Your task to perform on an android device: open sync settings in chrome Image 0: 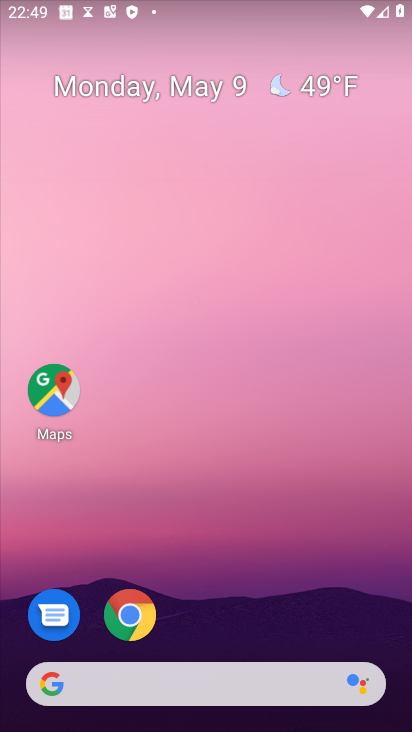
Step 0: click (134, 629)
Your task to perform on an android device: open sync settings in chrome Image 1: 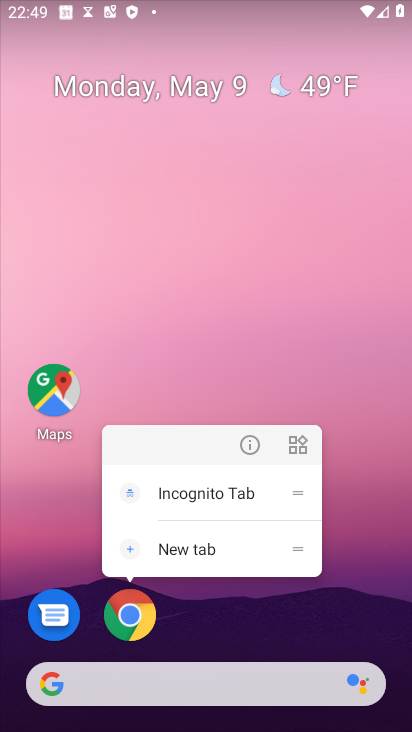
Step 1: click (139, 630)
Your task to perform on an android device: open sync settings in chrome Image 2: 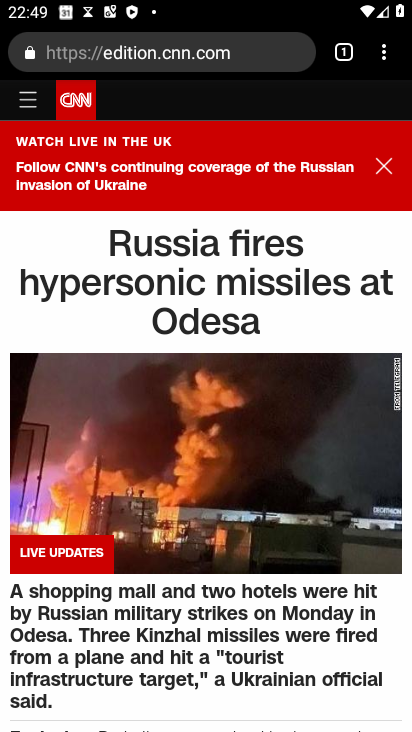
Step 2: drag from (383, 57) to (217, 628)
Your task to perform on an android device: open sync settings in chrome Image 3: 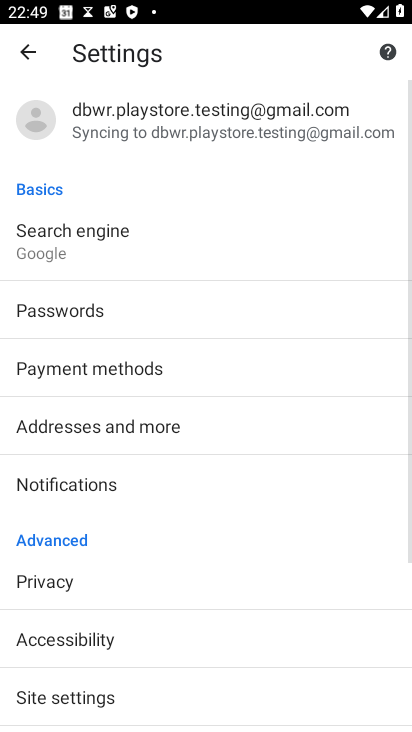
Step 3: drag from (201, 684) to (199, 378)
Your task to perform on an android device: open sync settings in chrome Image 4: 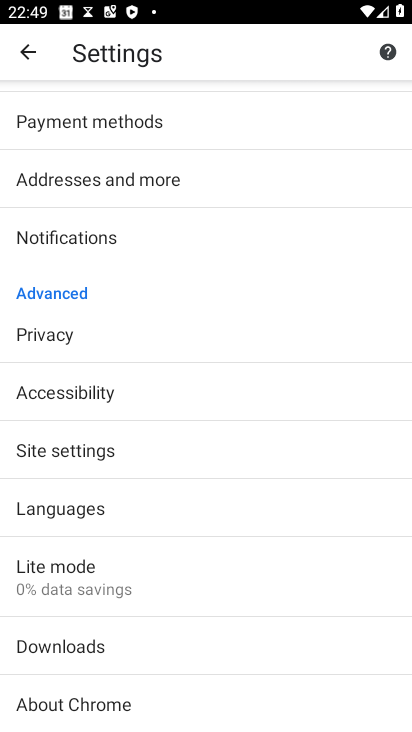
Step 4: click (127, 455)
Your task to perform on an android device: open sync settings in chrome Image 5: 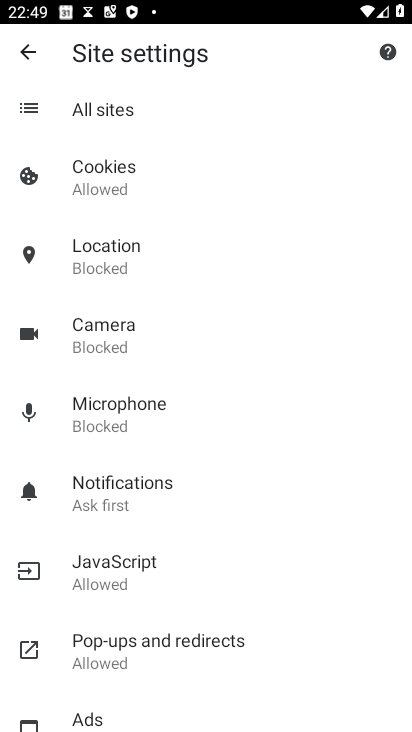
Step 5: drag from (193, 673) to (205, 386)
Your task to perform on an android device: open sync settings in chrome Image 6: 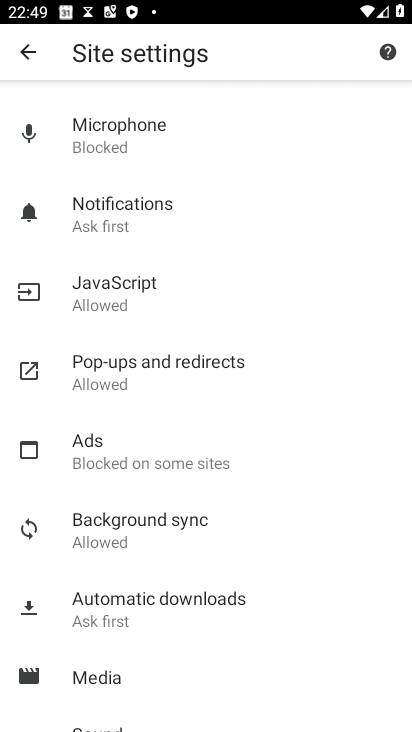
Step 6: click (159, 545)
Your task to perform on an android device: open sync settings in chrome Image 7: 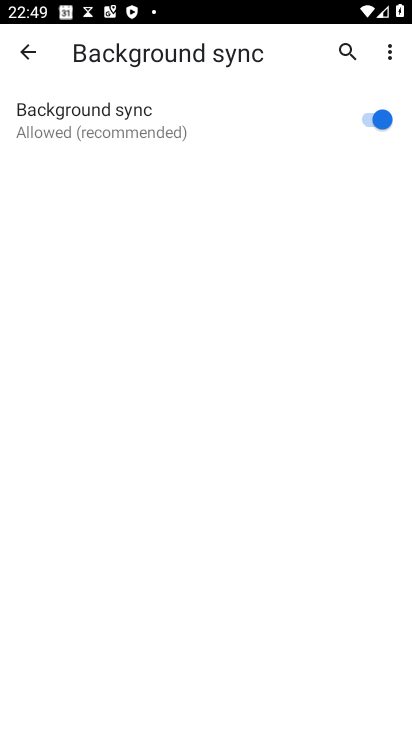
Step 7: task complete